Your task to perform on an android device: Play the last video I watched on Youtube Image 0: 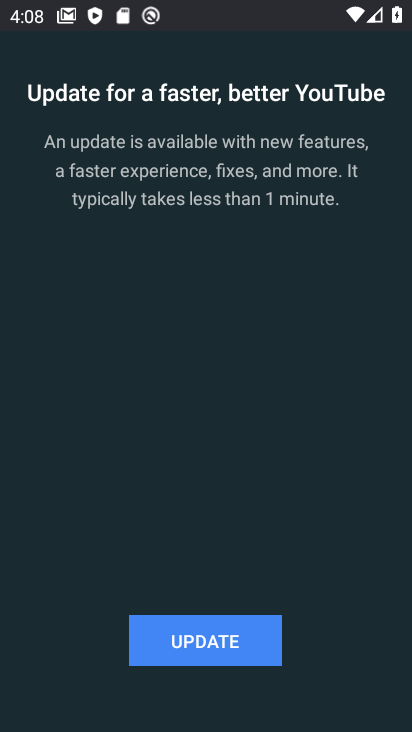
Step 0: press home button
Your task to perform on an android device: Play the last video I watched on Youtube Image 1: 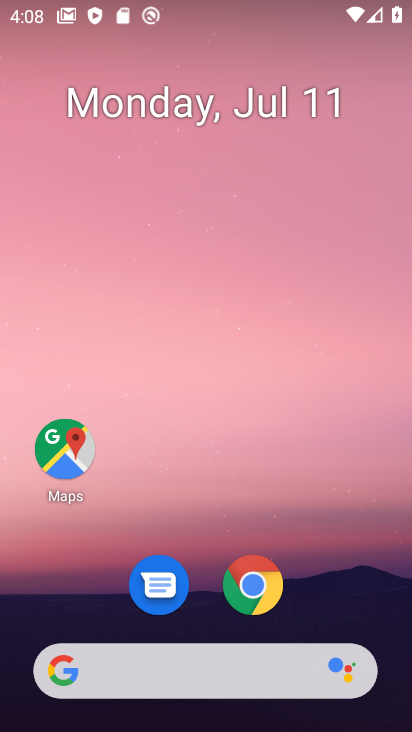
Step 1: drag from (330, 571) to (304, 23)
Your task to perform on an android device: Play the last video I watched on Youtube Image 2: 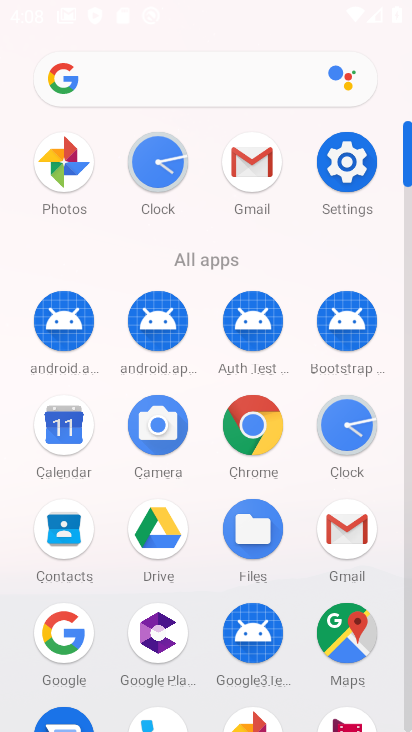
Step 2: drag from (194, 508) to (225, 100)
Your task to perform on an android device: Play the last video I watched on Youtube Image 3: 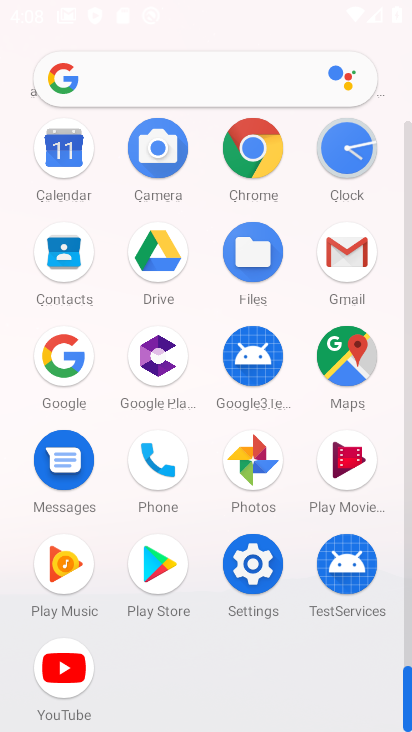
Step 3: click (63, 671)
Your task to perform on an android device: Play the last video I watched on Youtube Image 4: 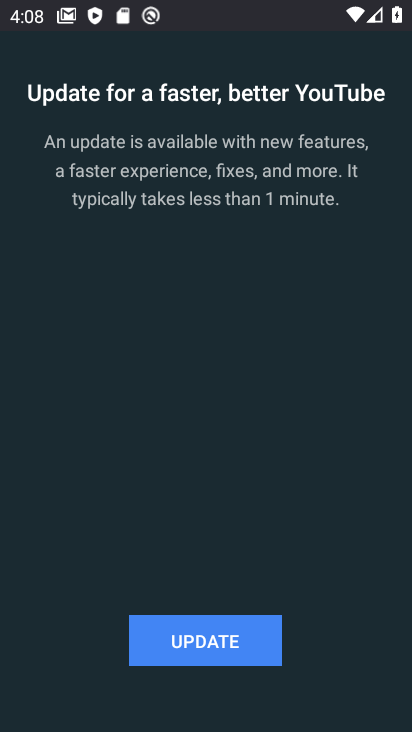
Step 4: click (180, 652)
Your task to perform on an android device: Play the last video I watched on Youtube Image 5: 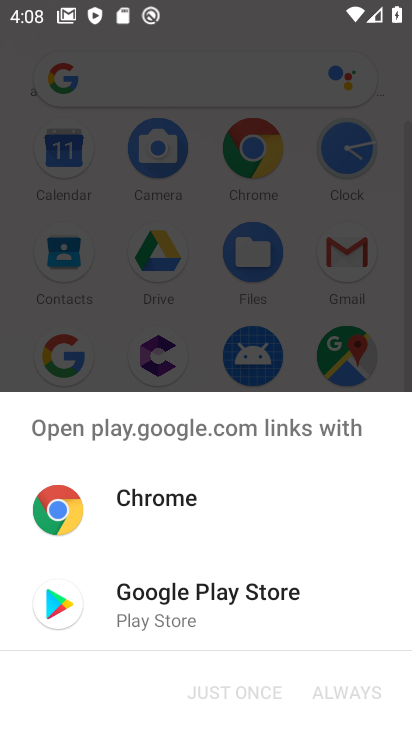
Step 5: click (196, 568)
Your task to perform on an android device: Play the last video I watched on Youtube Image 6: 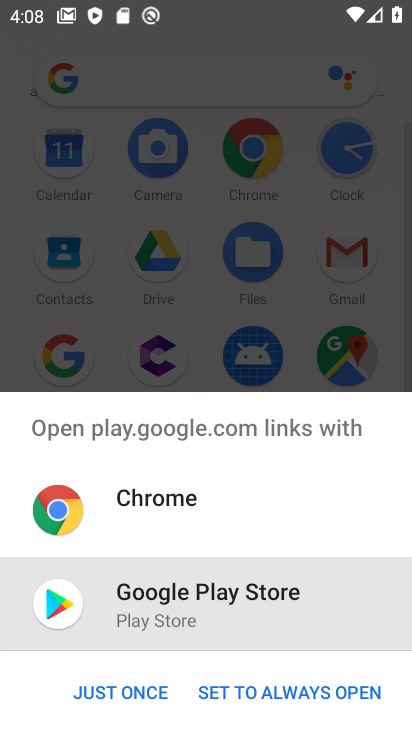
Step 6: click (132, 688)
Your task to perform on an android device: Play the last video I watched on Youtube Image 7: 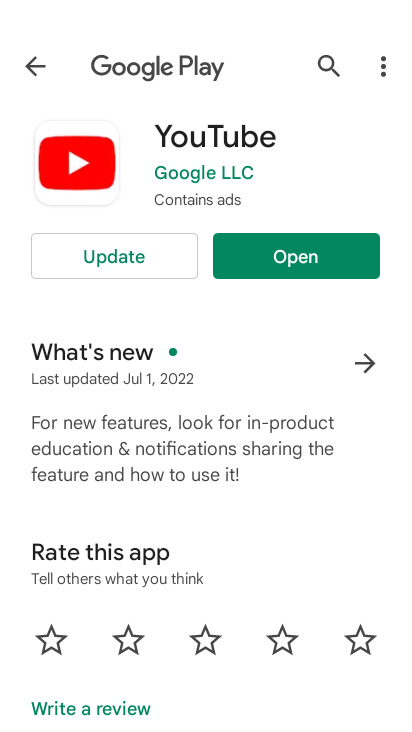
Step 7: click (147, 260)
Your task to perform on an android device: Play the last video I watched on Youtube Image 8: 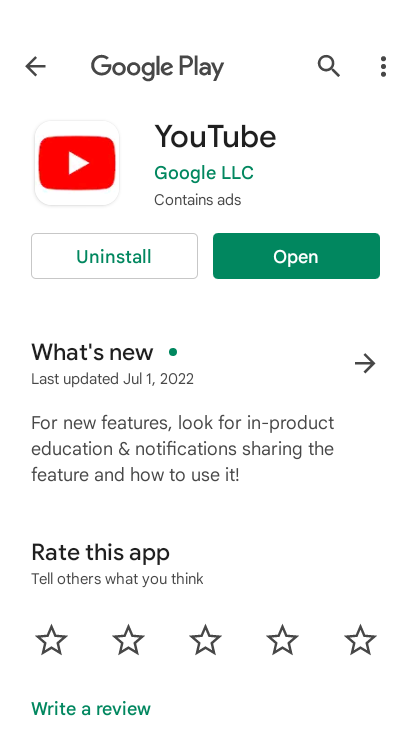
Step 8: click (364, 263)
Your task to perform on an android device: Play the last video I watched on Youtube Image 9: 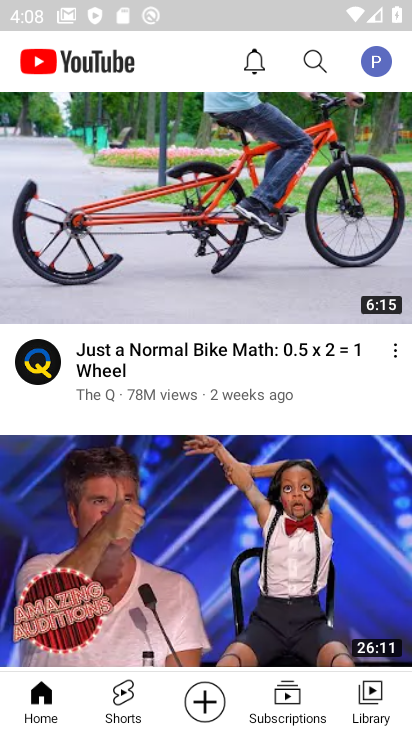
Step 9: click (375, 691)
Your task to perform on an android device: Play the last video I watched on Youtube Image 10: 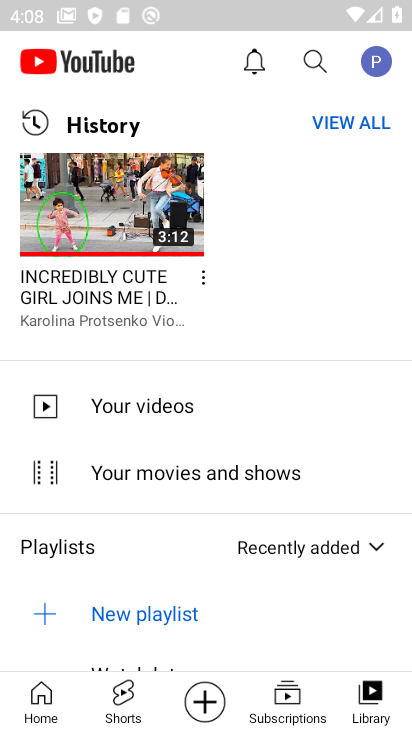
Step 10: click (130, 199)
Your task to perform on an android device: Play the last video I watched on Youtube Image 11: 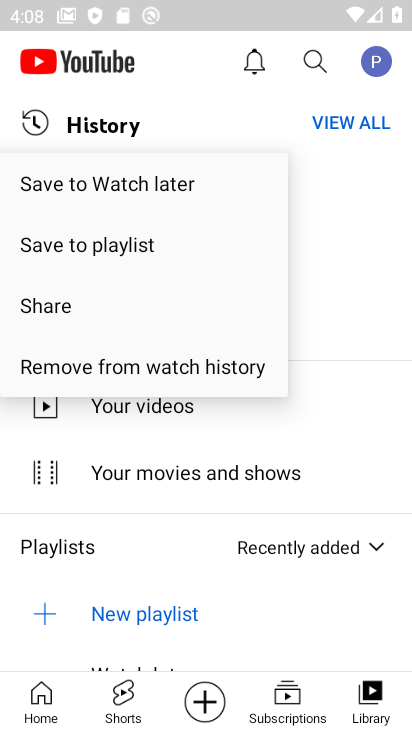
Step 11: click (358, 249)
Your task to perform on an android device: Play the last video I watched on Youtube Image 12: 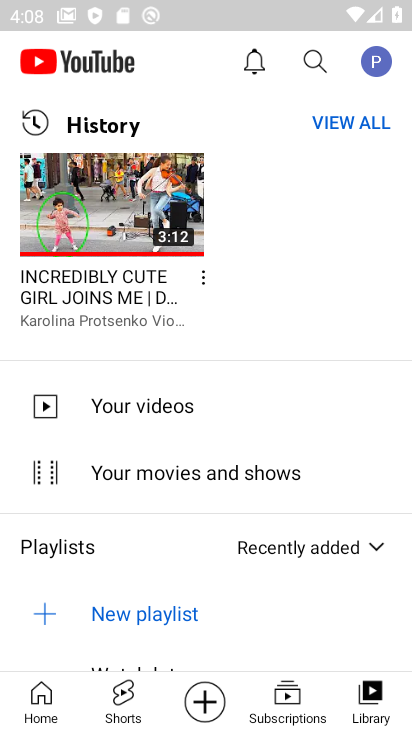
Step 12: click (127, 205)
Your task to perform on an android device: Play the last video I watched on Youtube Image 13: 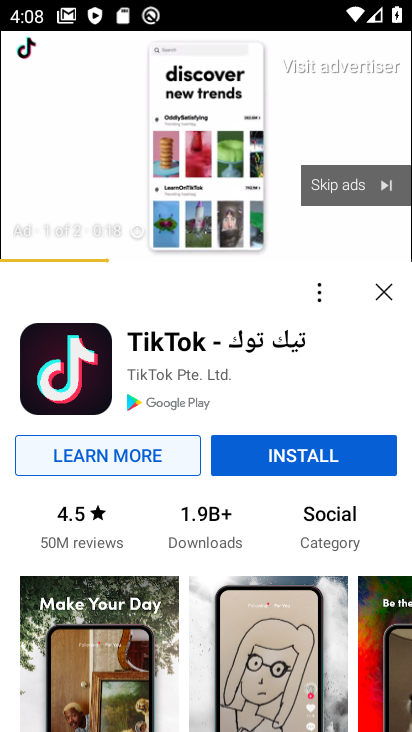
Step 13: click (345, 186)
Your task to perform on an android device: Play the last video I watched on Youtube Image 14: 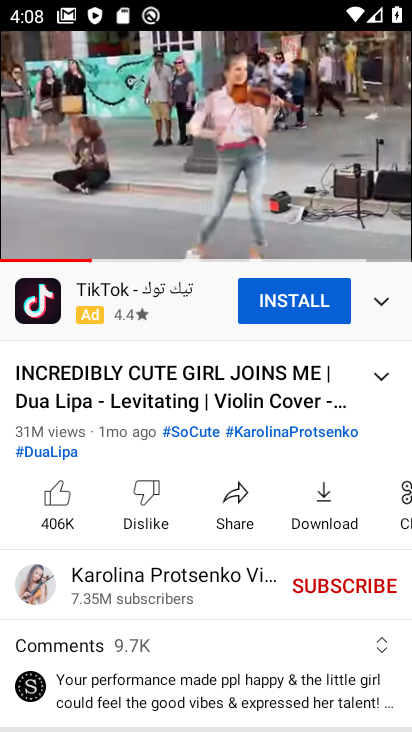
Step 14: task complete